Your task to perform on an android device: set the timer Image 0: 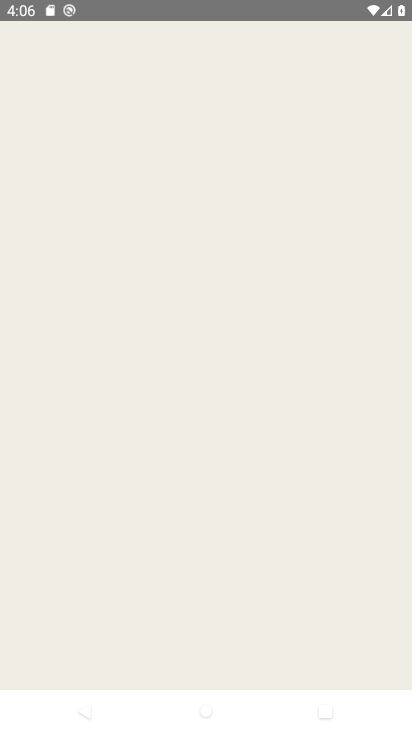
Step 0: press home button
Your task to perform on an android device: set the timer Image 1: 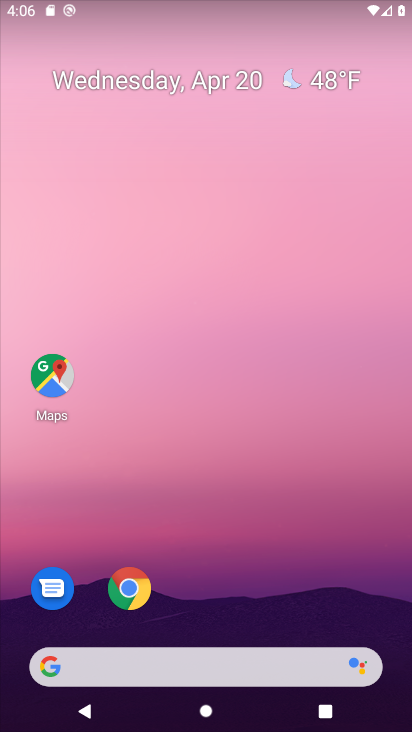
Step 1: drag from (330, 589) to (353, 193)
Your task to perform on an android device: set the timer Image 2: 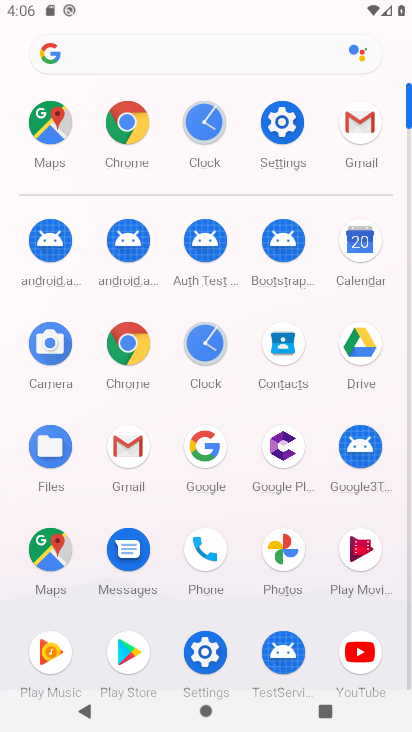
Step 2: click (210, 338)
Your task to perform on an android device: set the timer Image 3: 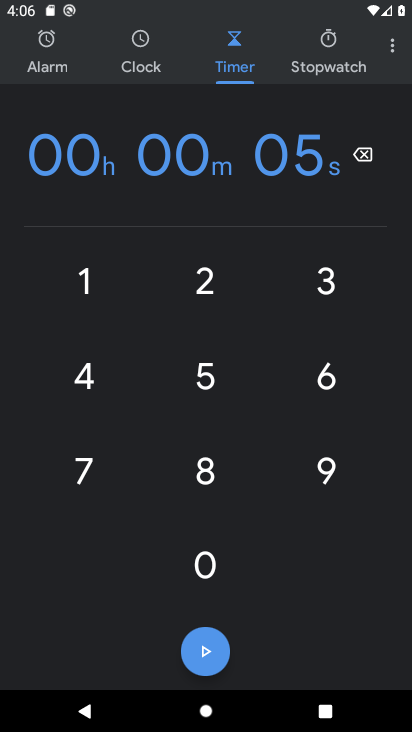
Step 3: click (190, 369)
Your task to perform on an android device: set the timer Image 4: 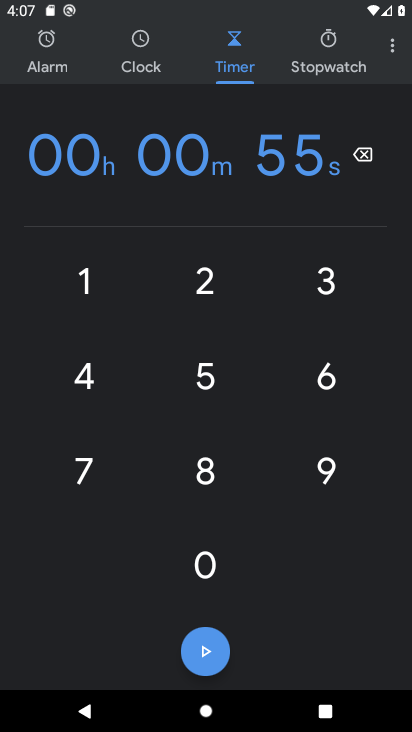
Step 4: click (206, 651)
Your task to perform on an android device: set the timer Image 5: 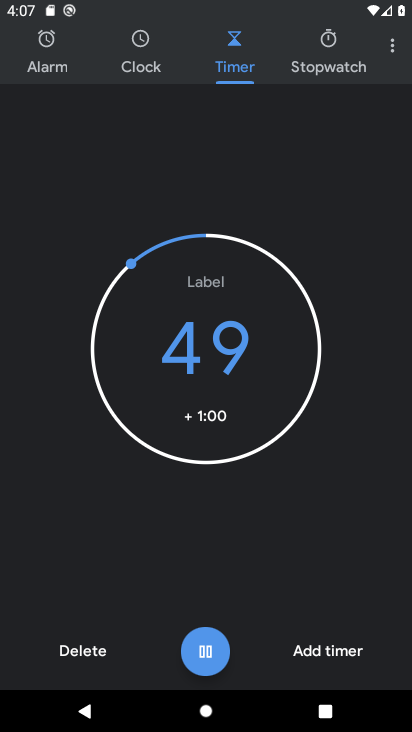
Step 5: task complete